Your task to perform on an android device: install app "Venmo" Image 0: 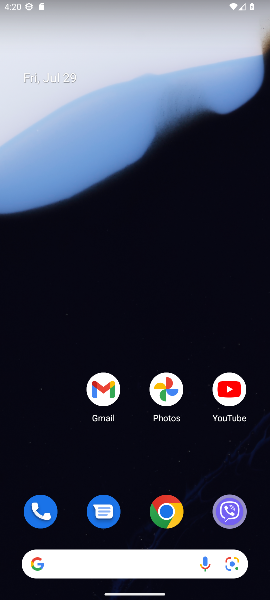
Step 0: click (73, 98)
Your task to perform on an android device: install app "Venmo" Image 1: 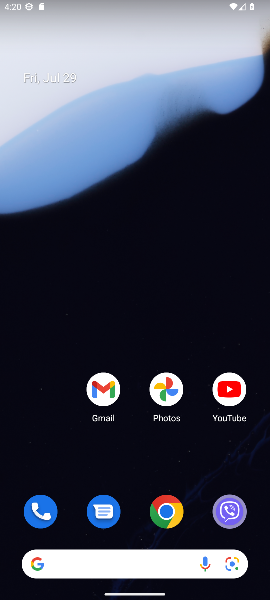
Step 1: click (129, 124)
Your task to perform on an android device: install app "Venmo" Image 2: 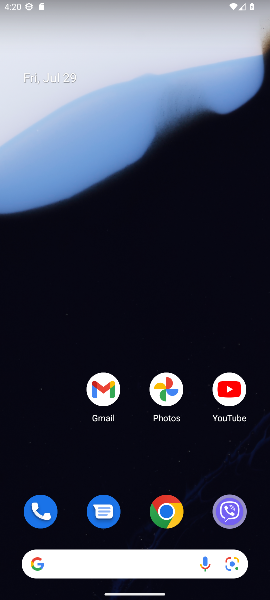
Step 2: drag from (130, 550) to (100, 201)
Your task to perform on an android device: install app "Venmo" Image 3: 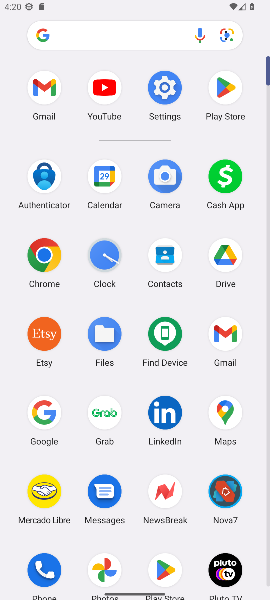
Step 3: click (164, 573)
Your task to perform on an android device: install app "Venmo" Image 4: 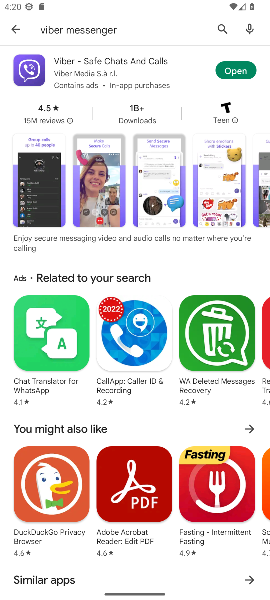
Step 4: click (13, 26)
Your task to perform on an android device: install app "Venmo" Image 5: 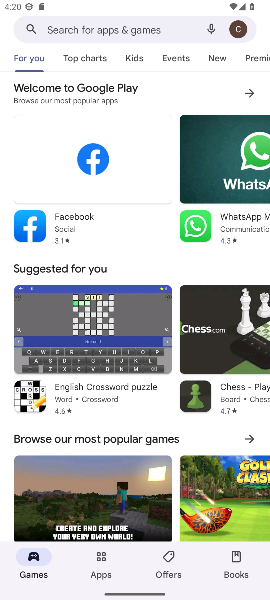
Step 5: click (76, 32)
Your task to perform on an android device: install app "Venmo" Image 6: 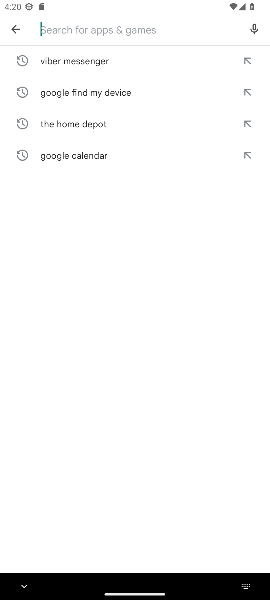
Step 6: type "Venmo"
Your task to perform on an android device: install app "Venmo" Image 7: 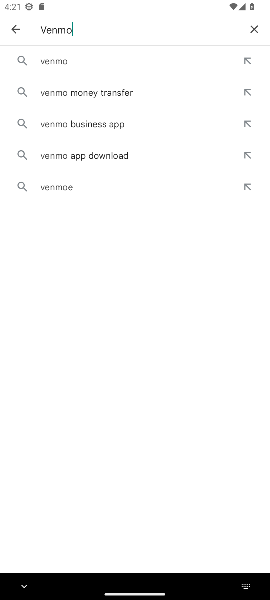
Step 7: click (56, 64)
Your task to perform on an android device: install app "Venmo" Image 8: 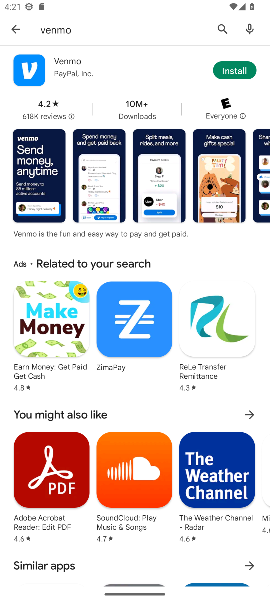
Step 8: click (246, 68)
Your task to perform on an android device: install app "Venmo" Image 9: 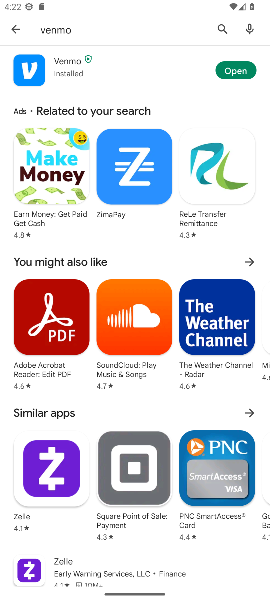
Step 9: task complete